Your task to perform on an android device: Go to display settings Image 0: 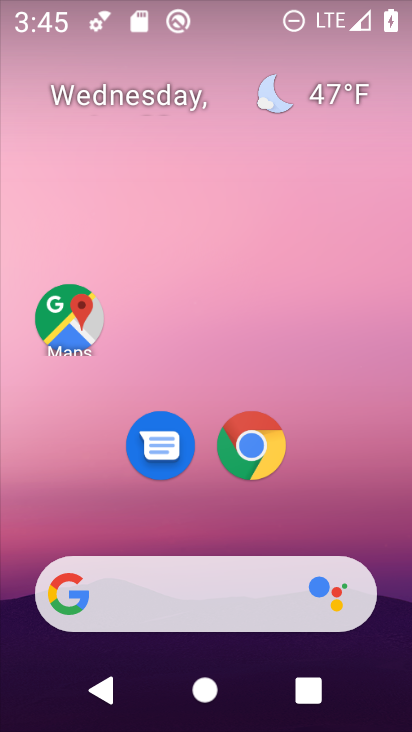
Step 0: drag from (315, 509) to (315, 46)
Your task to perform on an android device: Go to display settings Image 1: 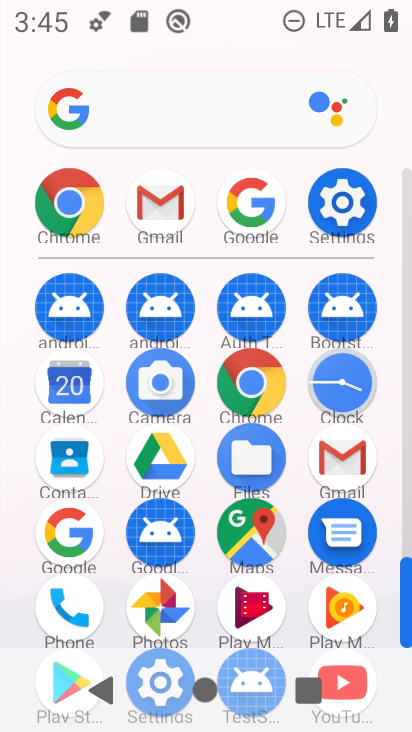
Step 1: click (345, 200)
Your task to perform on an android device: Go to display settings Image 2: 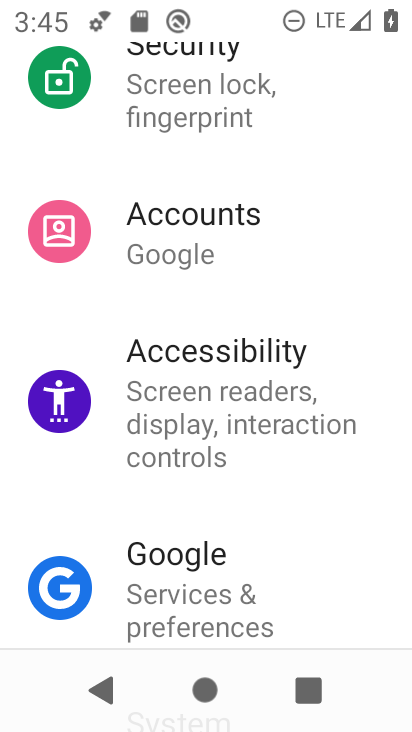
Step 2: drag from (284, 235) to (328, 361)
Your task to perform on an android device: Go to display settings Image 3: 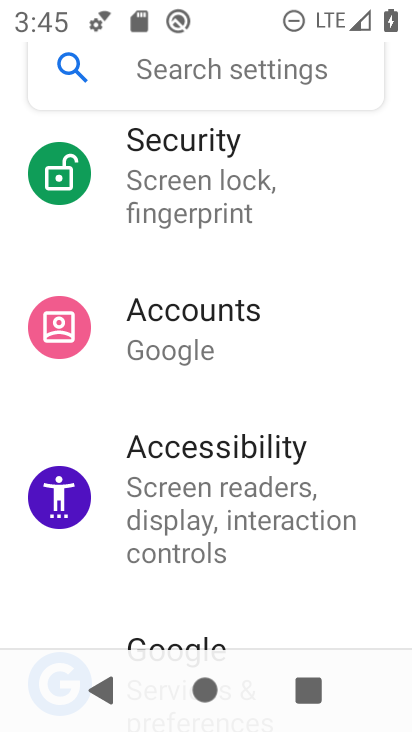
Step 3: drag from (283, 217) to (307, 381)
Your task to perform on an android device: Go to display settings Image 4: 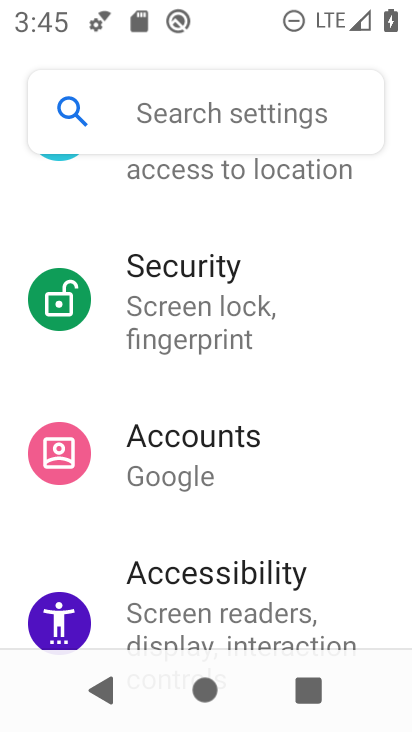
Step 4: drag from (272, 246) to (300, 403)
Your task to perform on an android device: Go to display settings Image 5: 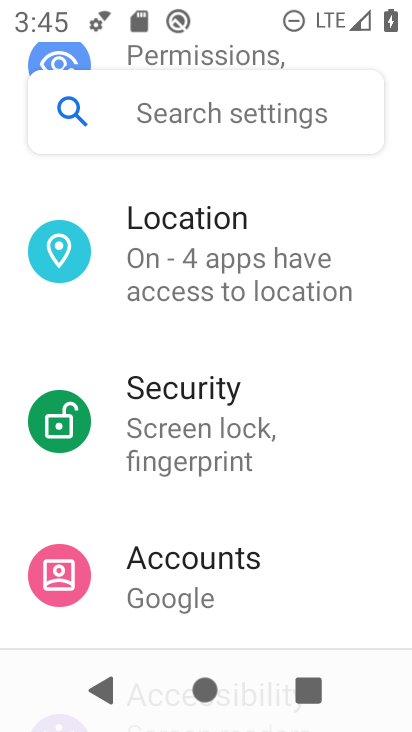
Step 5: drag from (273, 223) to (312, 415)
Your task to perform on an android device: Go to display settings Image 6: 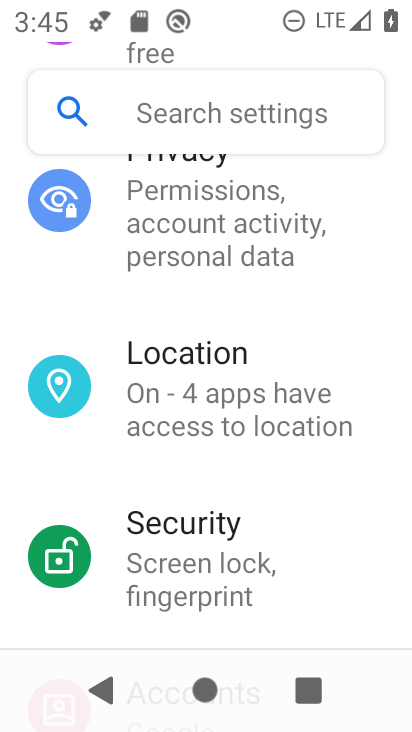
Step 6: drag from (287, 313) to (317, 444)
Your task to perform on an android device: Go to display settings Image 7: 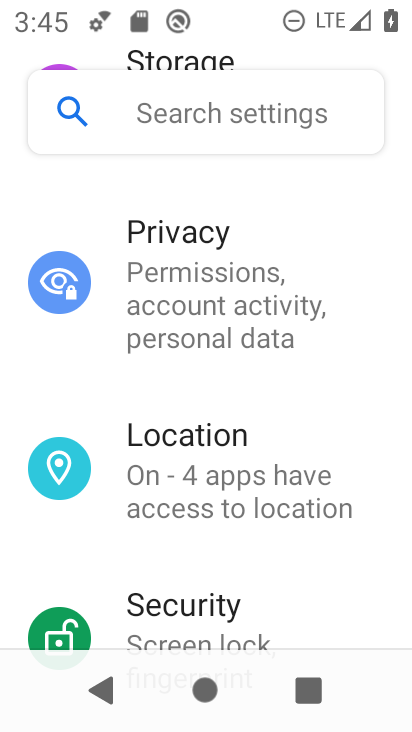
Step 7: drag from (271, 222) to (315, 433)
Your task to perform on an android device: Go to display settings Image 8: 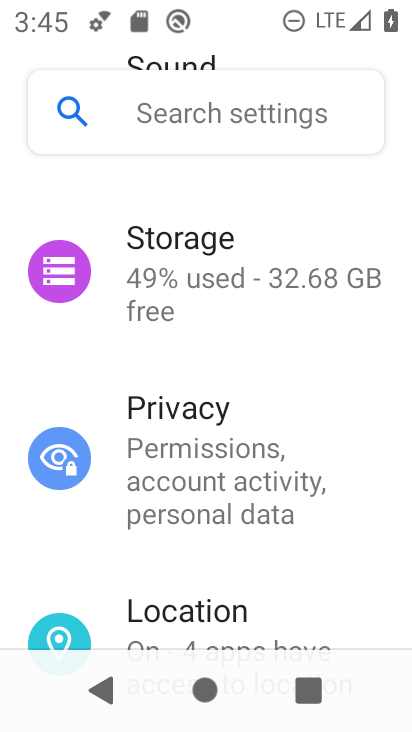
Step 8: drag from (284, 350) to (259, 474)
Your task to perform on an android device: Go to display settings Image 9: 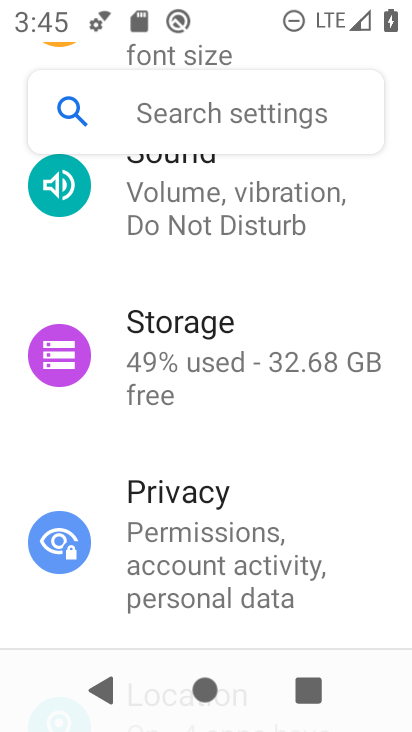
Step 9: drag from (314, 300) to (333, 472)
Your task to perform on an android device: Go to display settings Image 10: 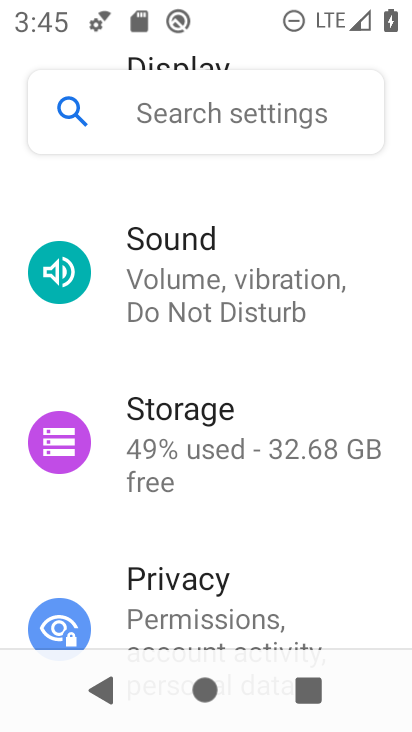
Step 10: drag from (289, 373) to (294, 488)
Your task to perform on an android device: Go to display settings Image 11: 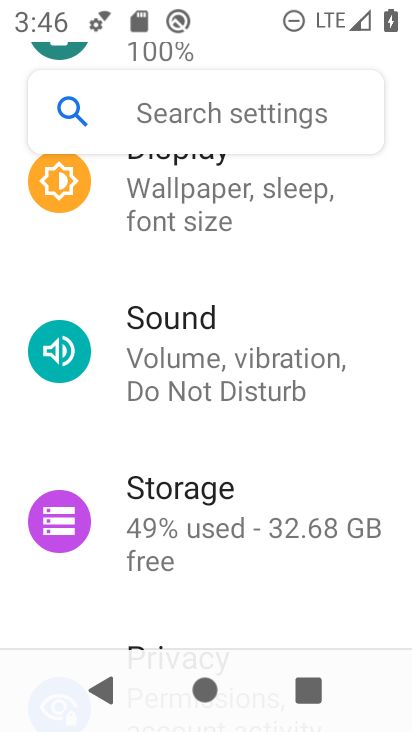
Step 11: drag from (318, 300) to (351, 489)
Your task to perform on an android device: Go to display settings Image 12: 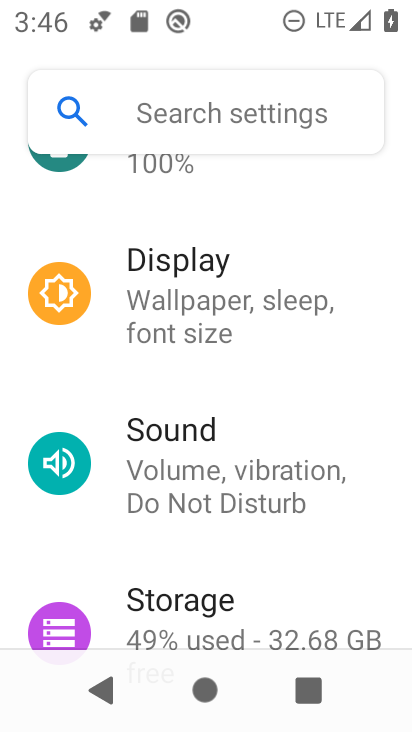
Step 12: click (205, 269)
Your task to perform on an android device: Go to display settings Image 13: 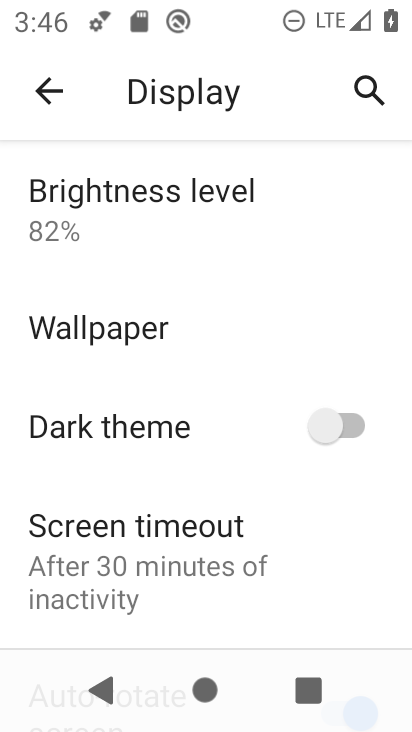
Step 13: task complete